Your task to perform on an android device: clear history in the chrome app Image 0: 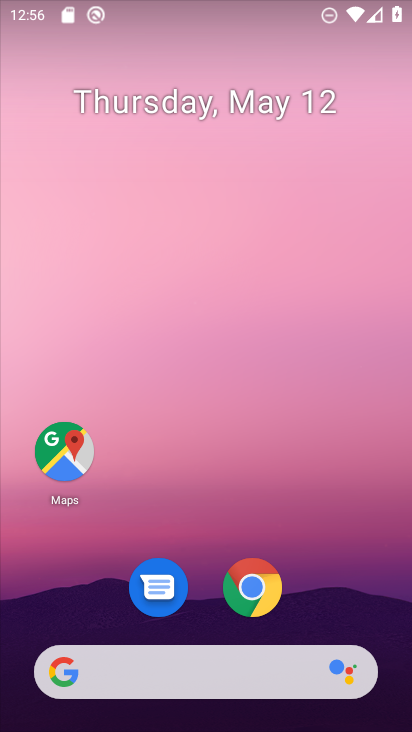
Step 0: click (254, 586)
Your task to perform on an android device: clear history in the chrome app Image 1: 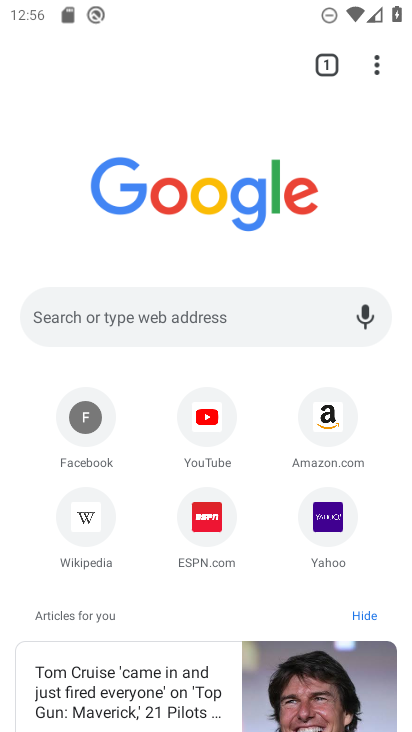
Step 1: click (377, 69)
Your task to perform on an android device: clear history in the chrome app Image 2: 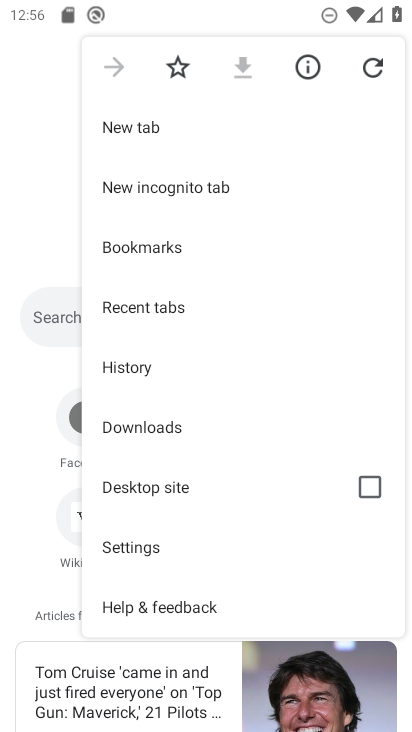
Step 2: click (133, 373)
Your task to perform on an android device: clear history in the chrome app Image 3: 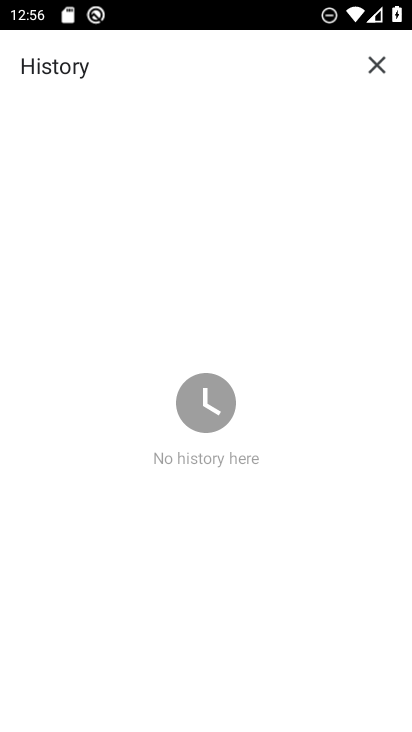
Step 3: task complete